Your task to perform on an android device: View the shopping cart on bestbuy.com. Add logitech g pro to the cart on bestbuy.com, then select checkout. Image 0: 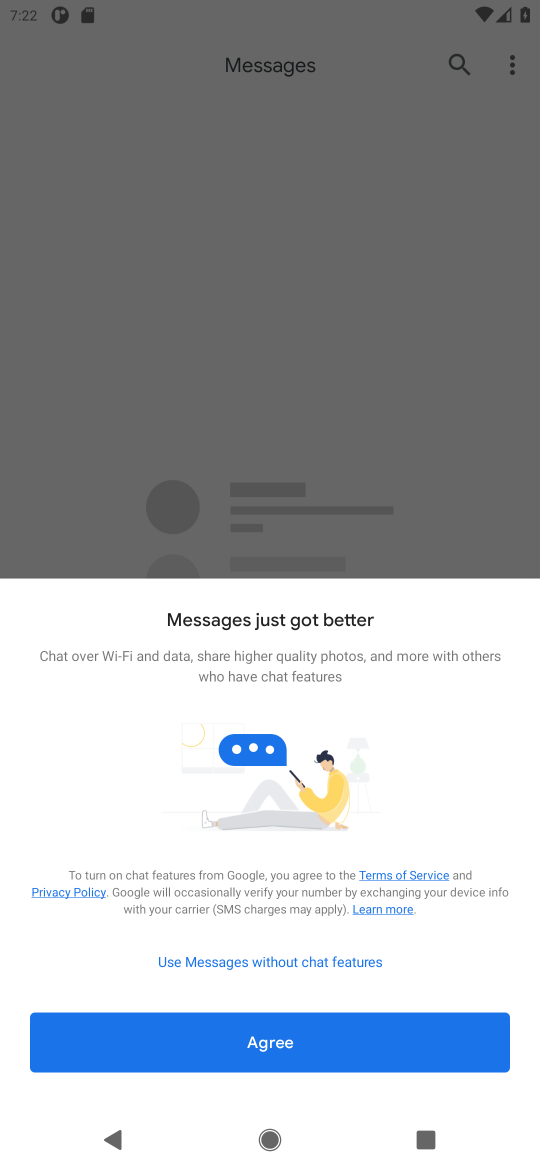
Step 0: press home button
Your task to perform on an android device: View the shopping cart on bestbuy.com. Add logitech g pro to the cart on bestbuy.com, then select checkout. Image 1: 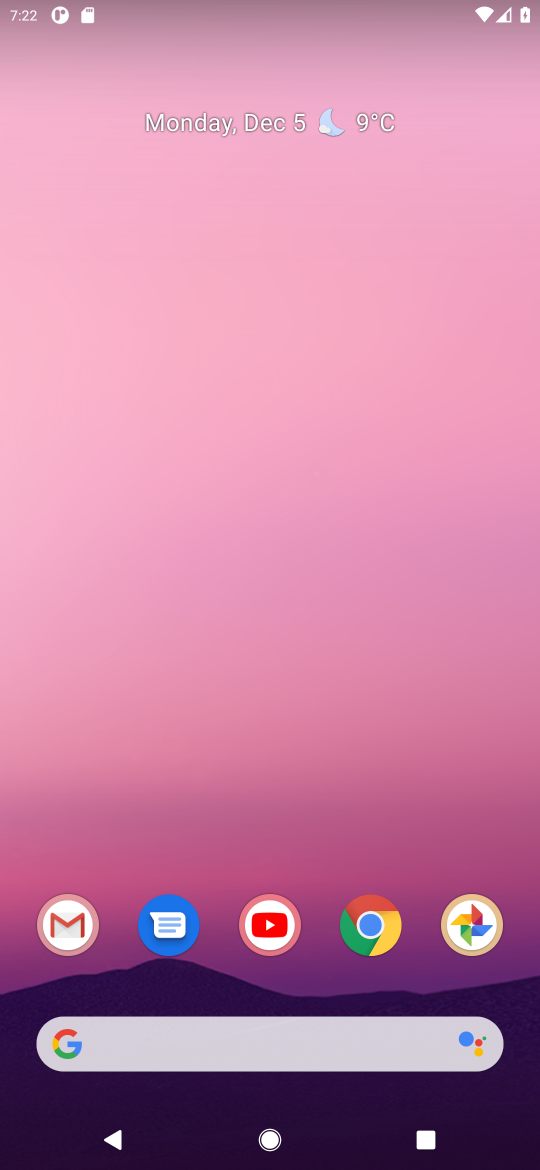
Step 1: click (379, 951)
Your task to perform on an android device: View the shopping cart on bestbuy.com. Add logitech g pro to the cart on bestbuy.com, then select checkout. Image 2: 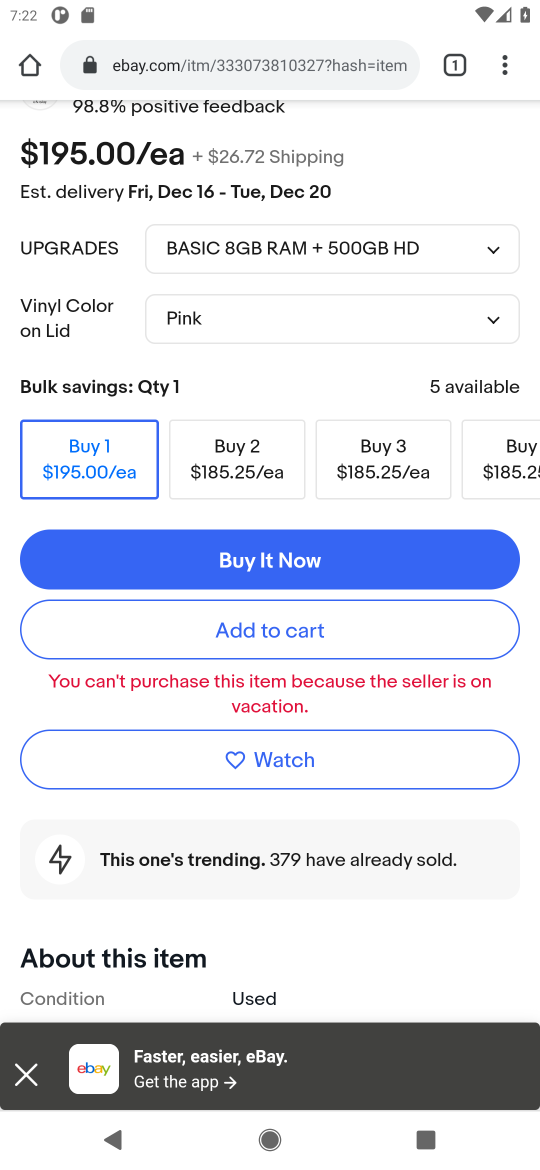
Step 2: click (229, 68)
Your task to perform on an android device: View the shopping cart on bestbuy.com. Add logitech g pro to the cart on bestbuy.com, then select checkout. Image 3: 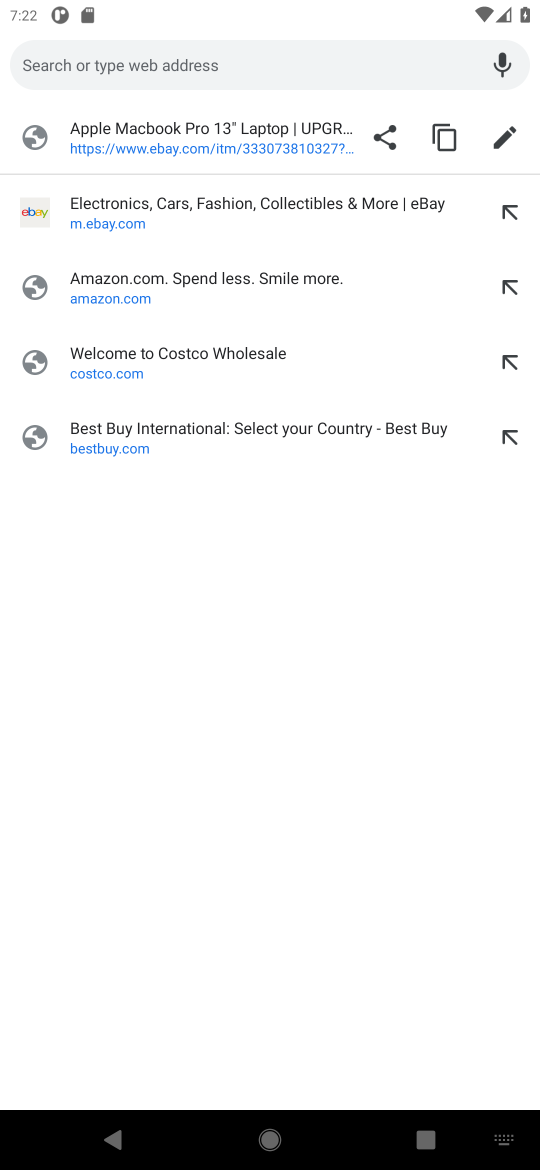
Step 3: click (106, 449)
Your task to perform on an android device: View the shopping cart on bestbuy.com. Add logitech g pro to the cart on bestbuy.com, then select checkout. Image 4: 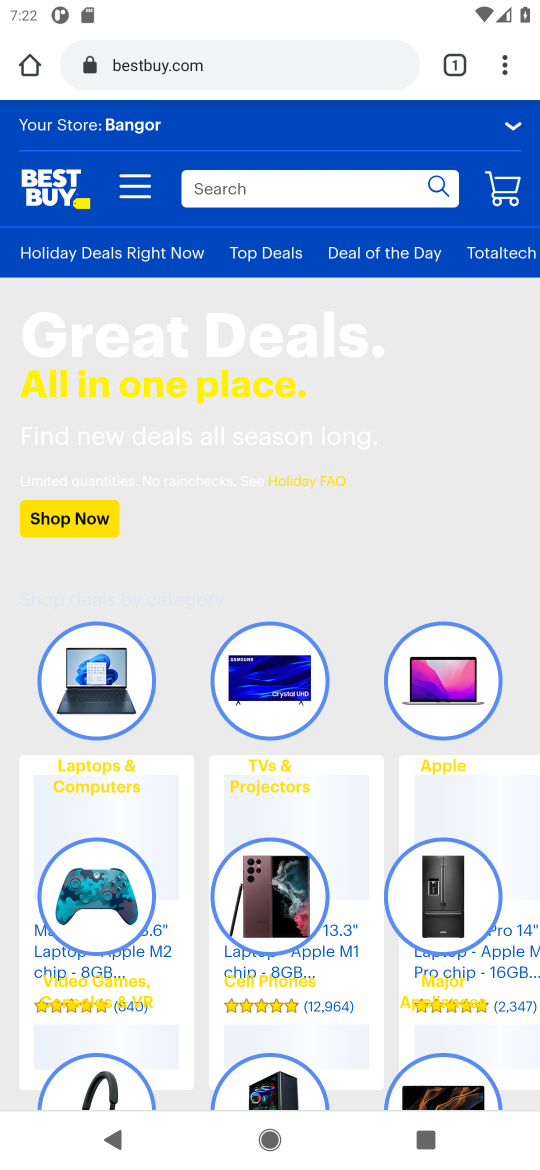
Step 4: click (505, 190)
Your task to perform on an android device: View the shopping cart on bestbuy.com. Add logitech g pro to the cart on bestbuy.com, then select checkout. Image 5: 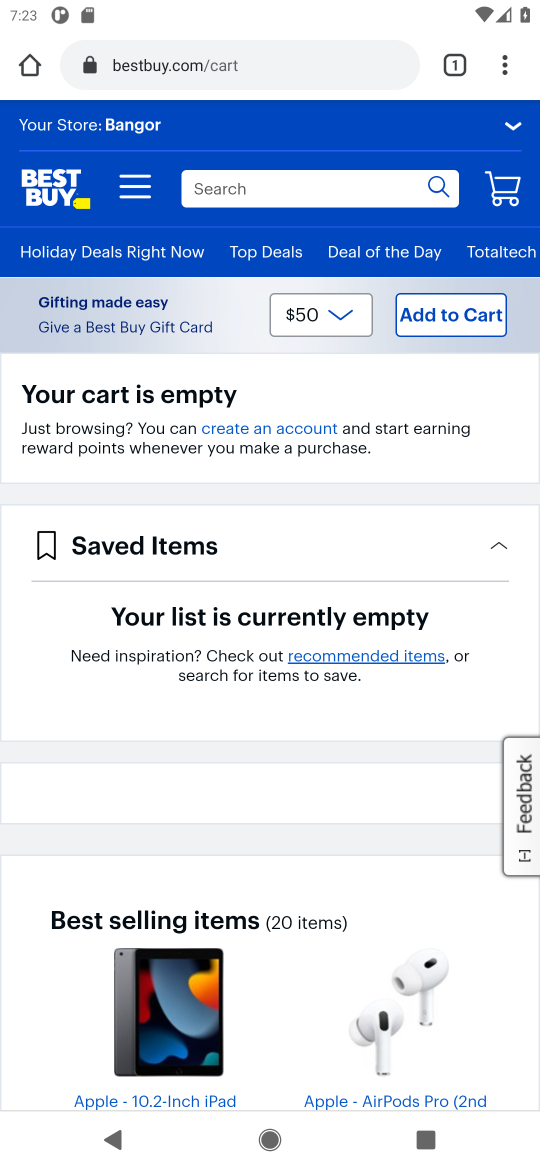
Step 5: click (288, 186)
Your task to perform on an android device: View the shopping cart on bestbuy.com. Add logitech g pro to the cart on bestbuy.com, then select checkout. Image 6: 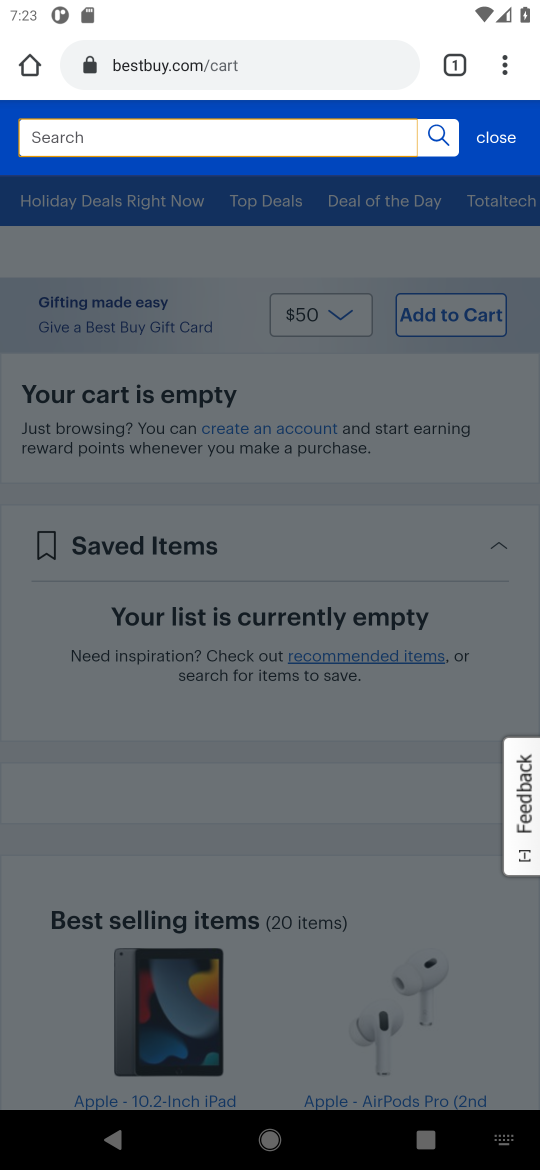
Step 6: type "logitech g pro"
Your task to perform on an android device: View the shopping cart on bestbuy.com. Add logitech g pro to the cart on bestbuy.com, then select checkout. Image 7: 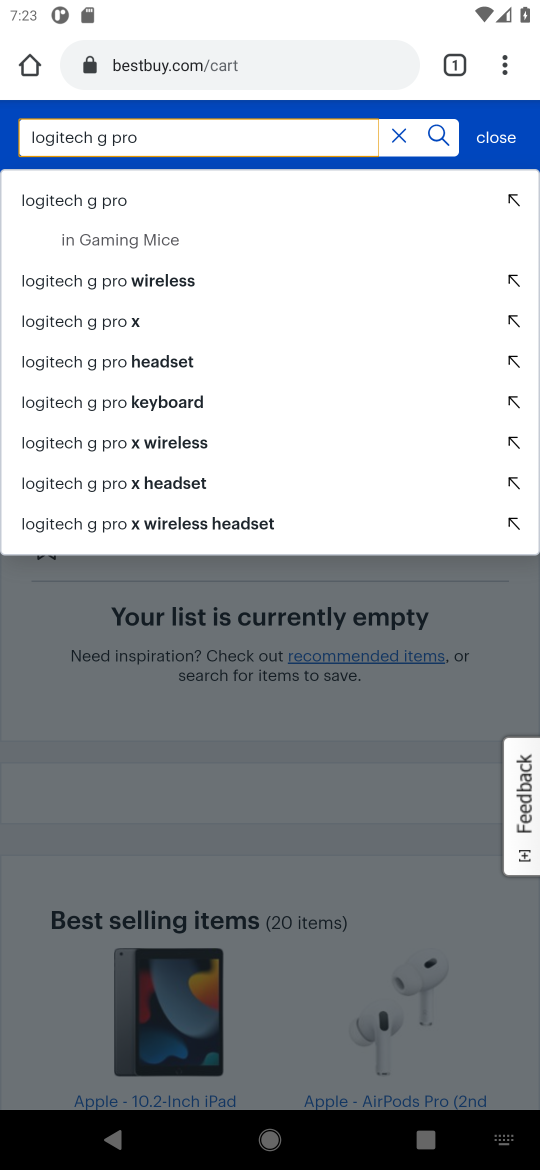
Step 7: click (62, 204)
Your task to perform on an android device: View the shopping cart on bestbuy.com. Add logitech g pro to the cart on bestbuy.com, then select checkout. Image 8: 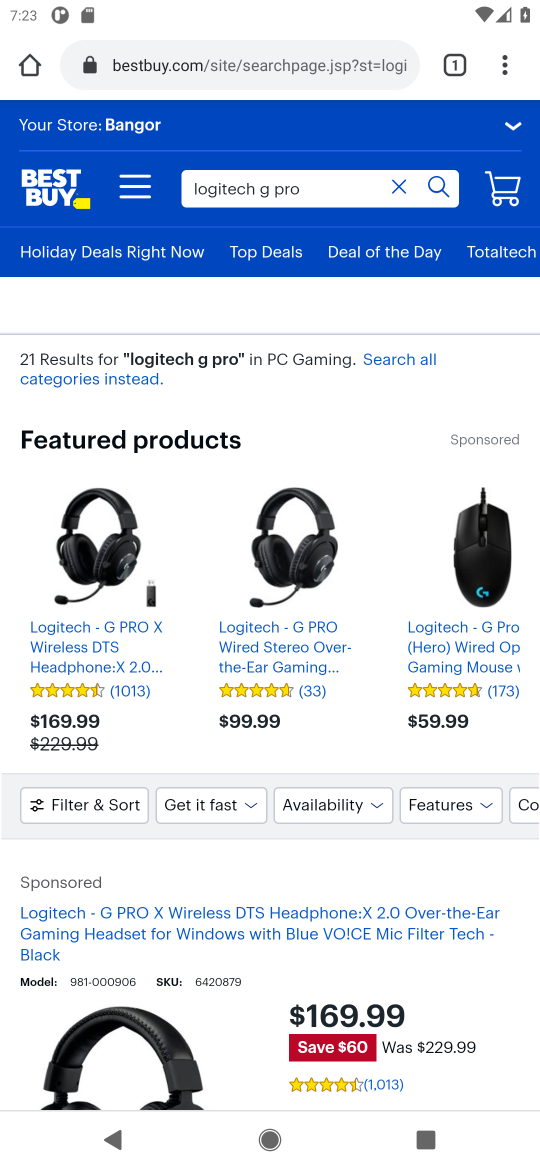
Step 8: drag from (236, 740) to (235, 490)
Your task to perform on an android device: View the shopping cart on bestbuy.com. Add logitech g pro to the cart on bestbuy.com, then select checkout. Image 9: 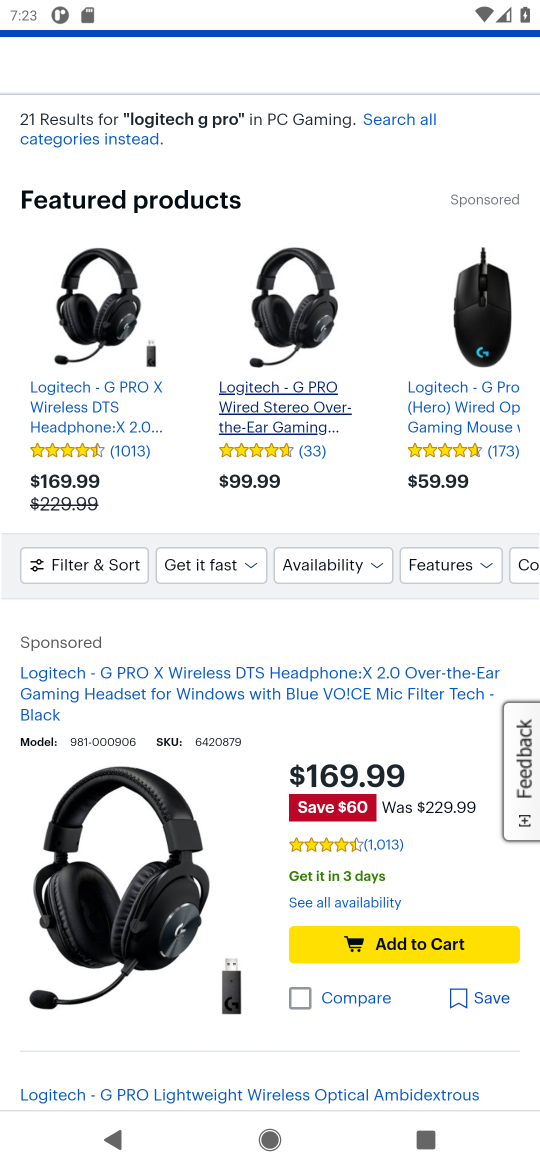
Step 9: click (374, 935)
Your task to perform on an android device: View the shopping cart on bestbuy.com. Add logitech g pro to the cart on bestbuy.com, then select checkout. Image 10: 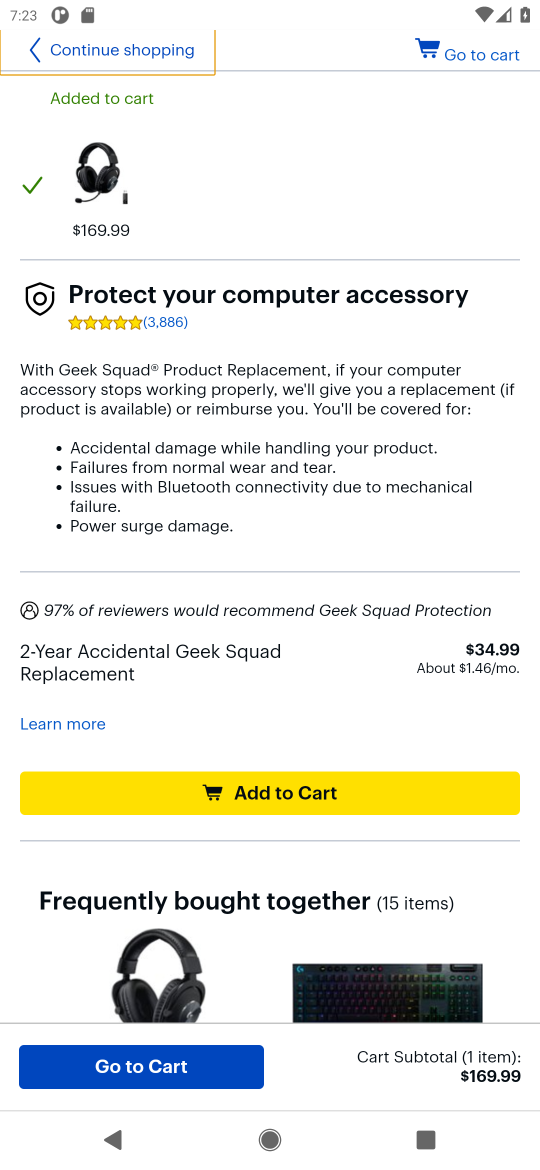
Step 10: click (480, 56)
Your task to perform on an android device: View the shopping cart on bestbuy.com. Add logitech g pro to the cart on bestbuy.com, then select checkout. Image 11: 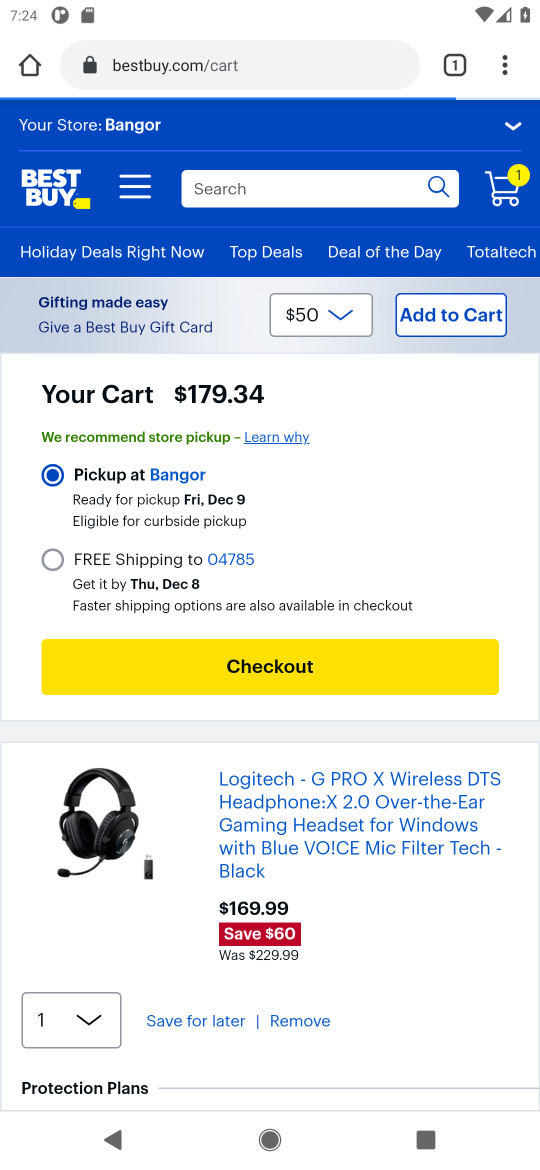
Step 11: click (250, 674)
Your task to perform on an android device: View the shopping cart on bestbuy.com. Add logitech g pro to the cart on bestbuy.com, then select checkout. Image 12: 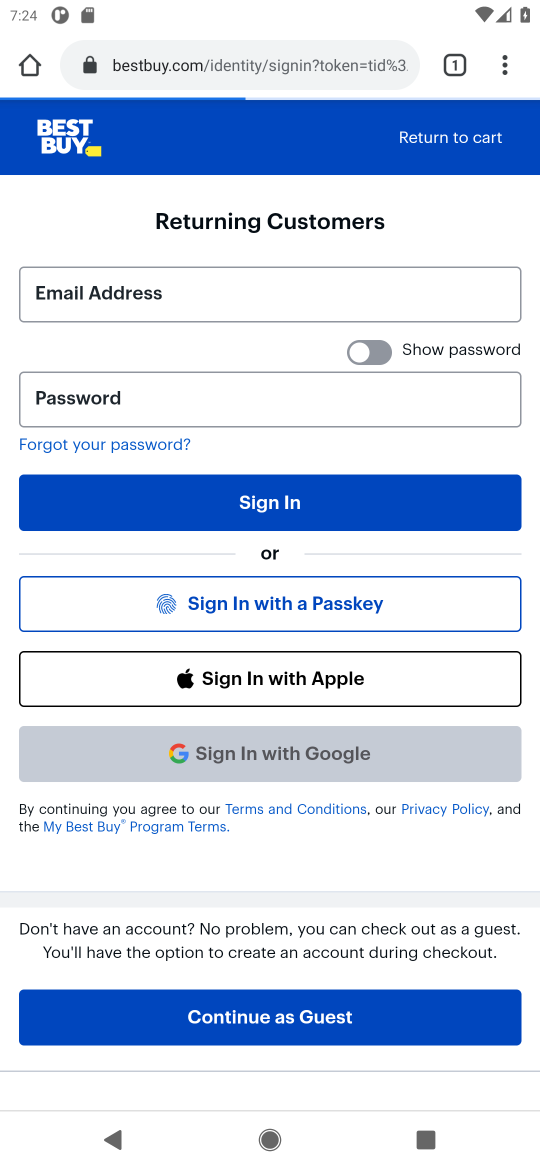
Step 12: task complete